Your task to perform on an android device: set the stopwatch Image 0: 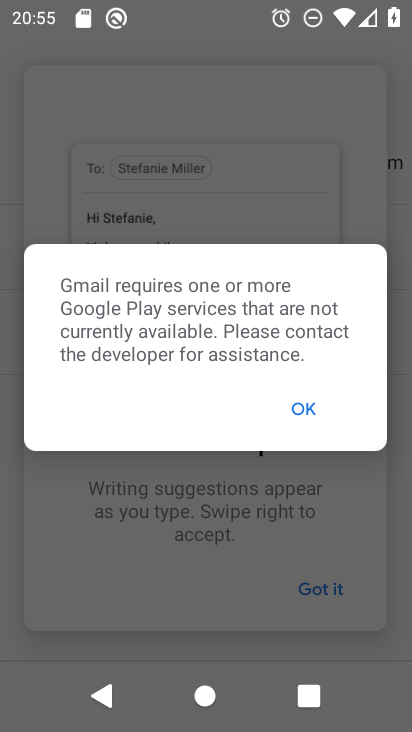
Step 0: press home button
Your task to perform on an android device: set the stopwatch Image 1: 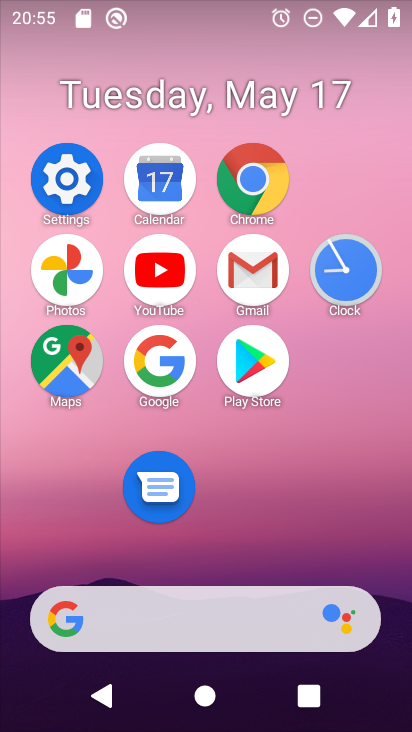
Step 1: click (362, 300)
Your task to perform on an android device: set the stopwatch Image 2: 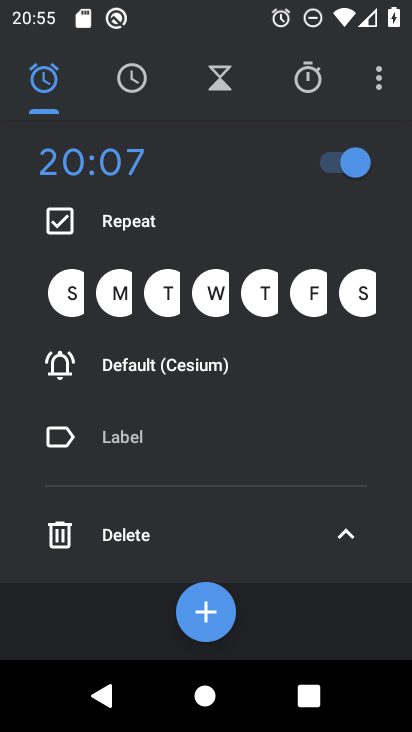
Step 2: click (304, 97)
Your task to perform on an android device: set the stopwatch Image 3: 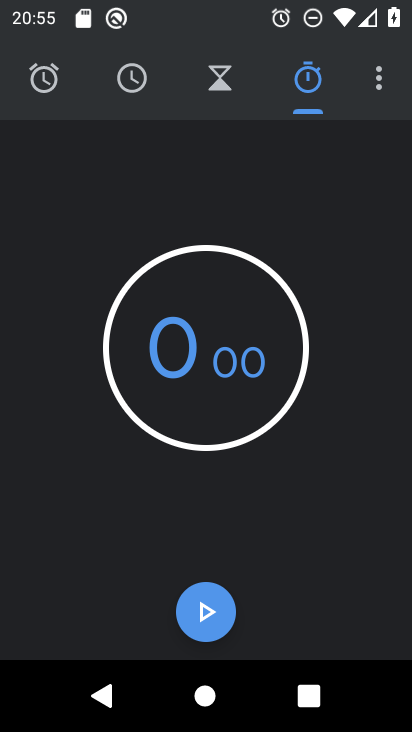
Step 3: click (215, 602)
Your task to perform on an android device: set the stopwatch Image 4: 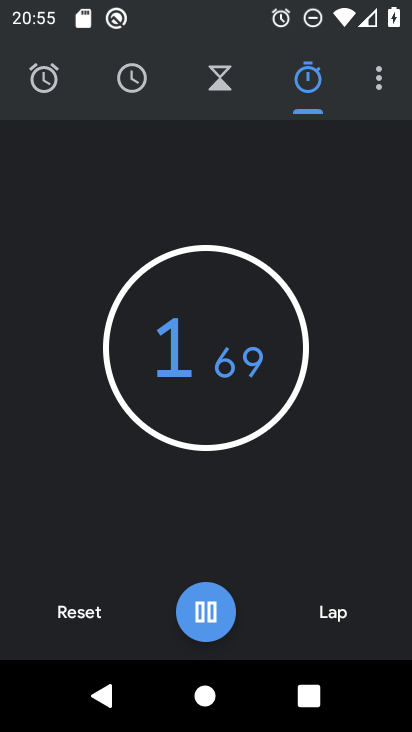
Step 4: task complete